Your task to perform on an android device: open a new tab in the chrome app Image 0: 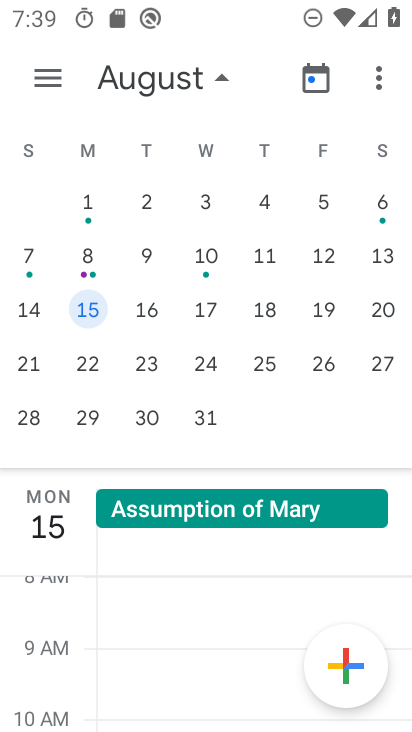
Step 0: press home button
Your task to perform on an android device: open a new tab in the chrome app Image 1: 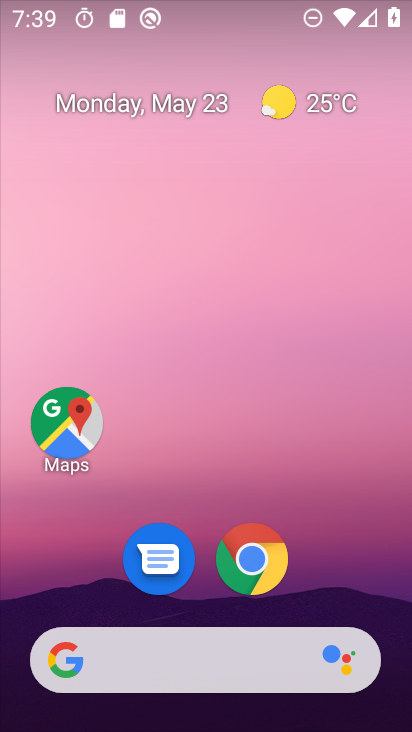
Step 1: drag from (400, 619) to (345, 44)
Your task to perform on an android device: open a new tab in the chrome app Image 2: 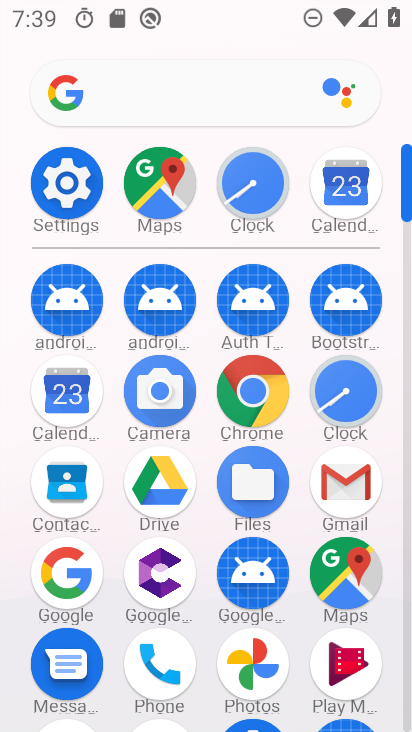
Step 2: click (259, 396)
Your task to perform on an android device: open a new tab in the chrome app Image 3: 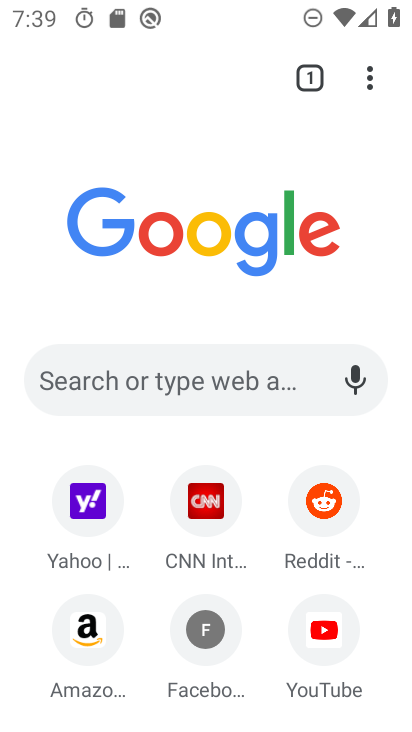
Step 3: click (368, 72)
Your task to perform on an android device: open a new tab in the chrome app Image 4: 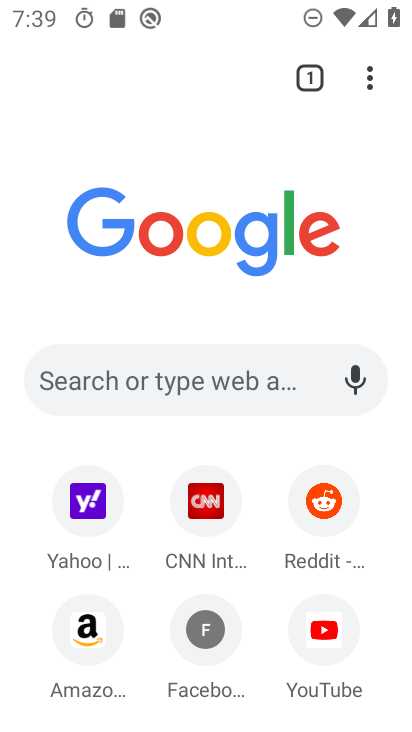
Step 4: click (378, 67)
Your task to perform on an android device: open a new tab in the chrome app Image 5: 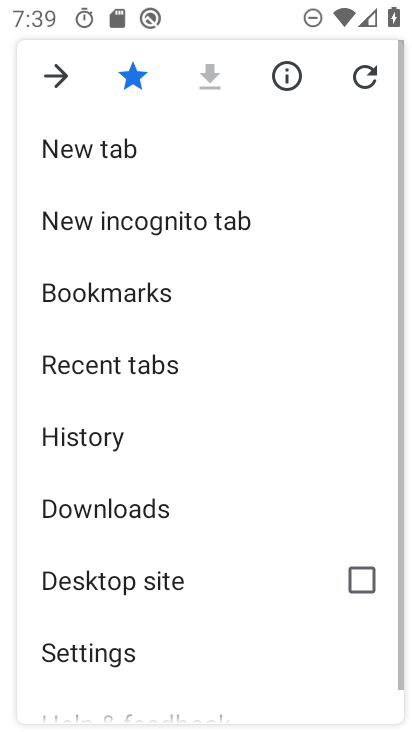
Step 5: click (154, 144)
Your task to perform on an android device: open a new tab in the chrome app Image 6: 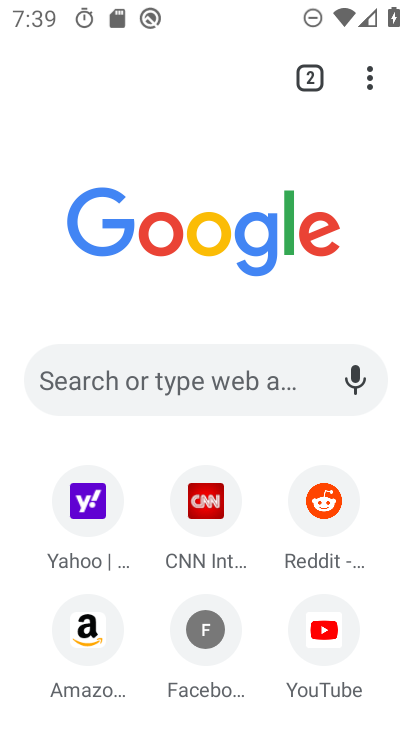
Step 6: task complete